Your task to perform on an android device: turn on the 12-hour format for clock Image 0: 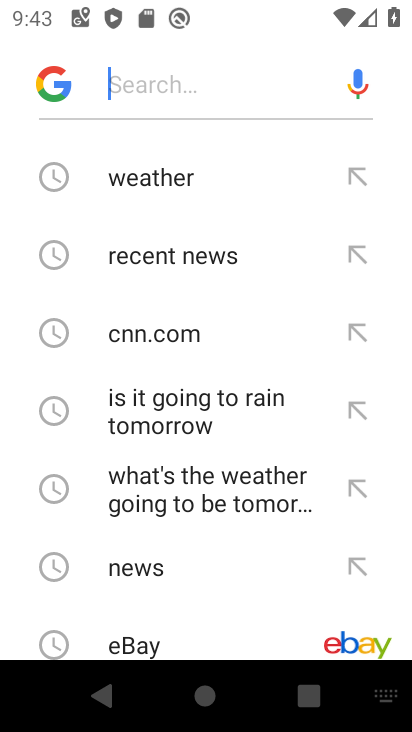
Step 0: press home button
Your task to perform on an android device: turn on the 12-hour format for clock Image 1: 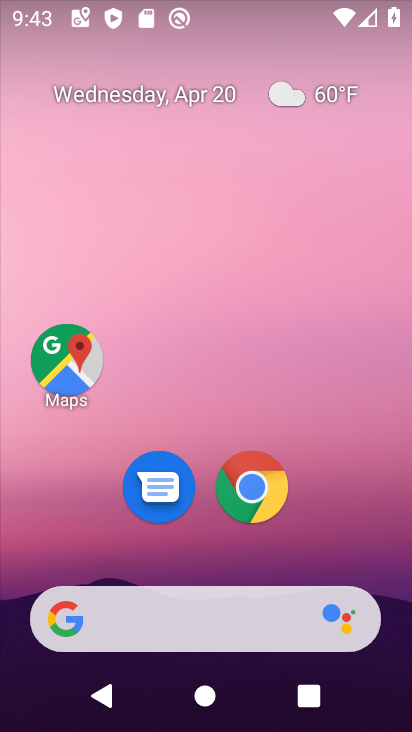
Step 1: click (255, 495)
Your task to perform on an android device: turn on the 12-hour format for clock Image 2: 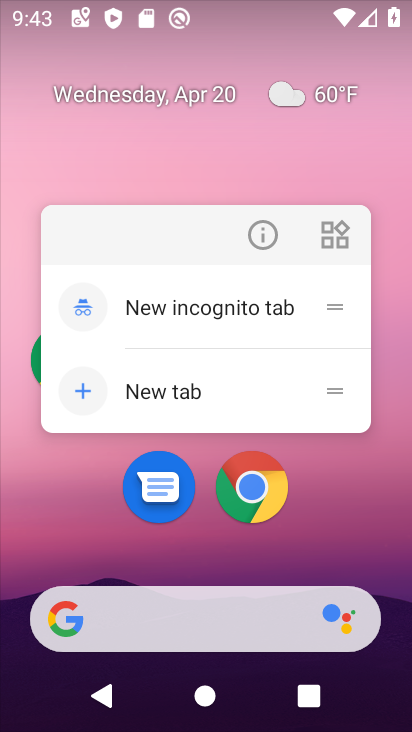
Step 2: press home button
Your task to perform on an android device: turn on the 12-hour format for clock Image 3: 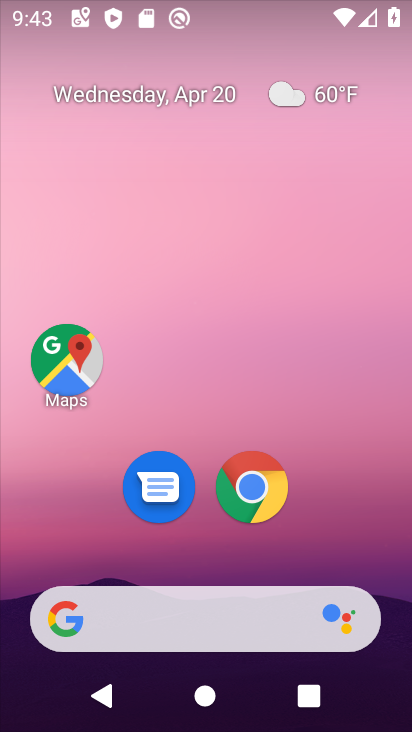
Step 3: drag from (13, 621) to (232, 171)
Your task to perform on an android device: turn on the 12-hour format for clock Image 4: 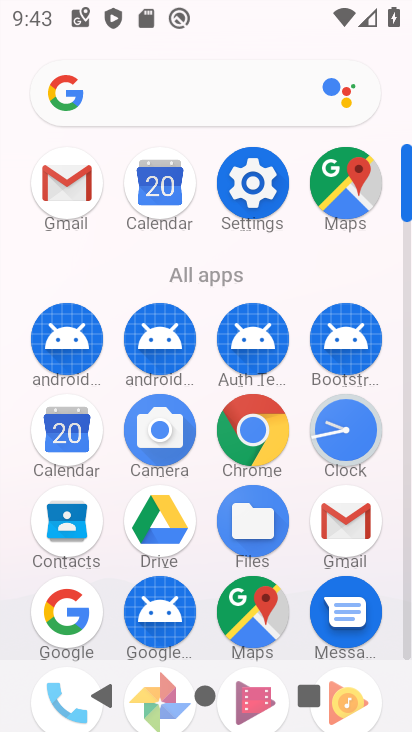
Step 4: click (357, 435)
Your task to perform on an android device: turn on the 12-hour format for clock Image 5: 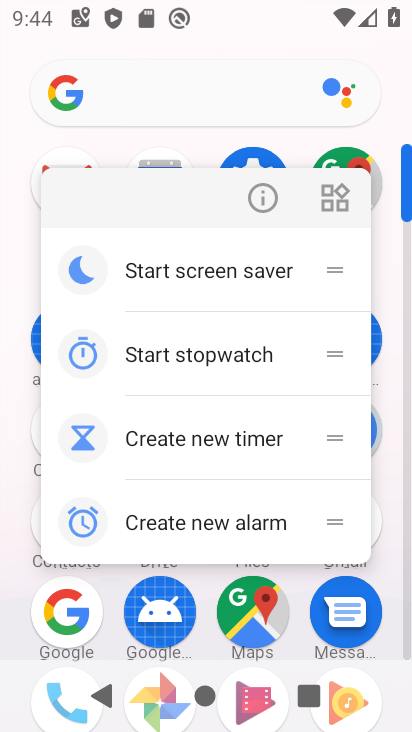
Step 5: click (388, 498)
Your task to perform on an android device: turn on the 12-hour format for clock Image 6: 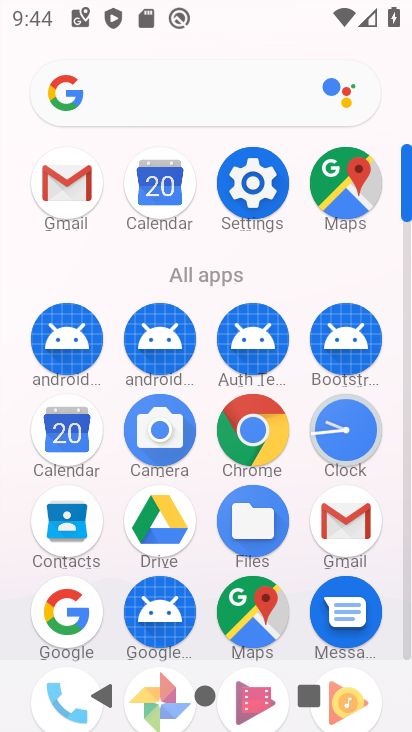
Step 6: click (355, 432)
Your task to perform on an android device: turn on the 12-hour format for clock Image 7: 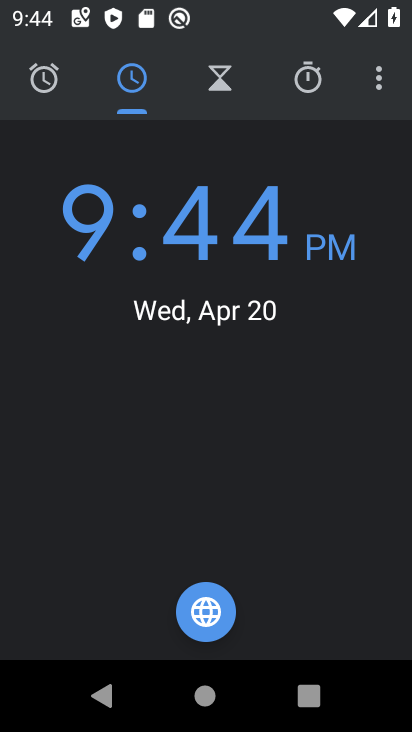
Step 7: click (383, 75)
Your task to perform on an android device: turn on the 12-hour format for clock Image 8: 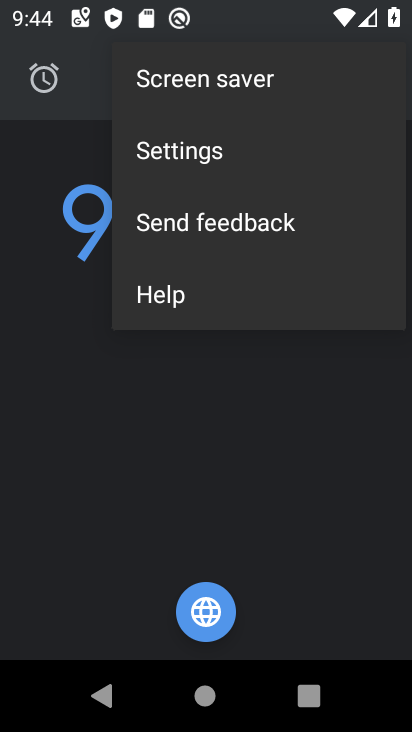
Step 8: click (293, 149)
Your task to perform on an android device: turn on the 12-hour format for clock Image 9: 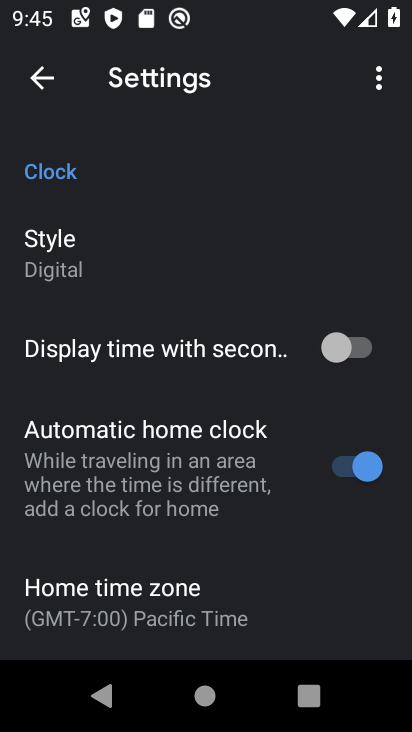
Step 9: drag from (137, 603) to (176, 250)
Your task to perform on an android device: turn on the 12-hour format for clock Image 10: 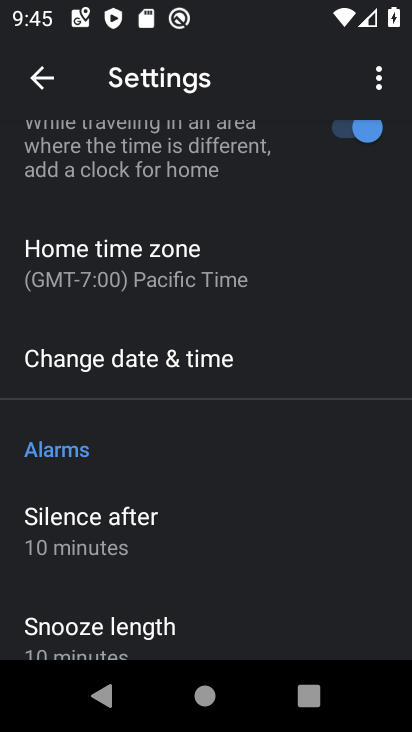
Step 10: drag from (187, 614) to (228, 195)
Your task to perform on an android device: turn on the 12-hour format for clock Image 11: 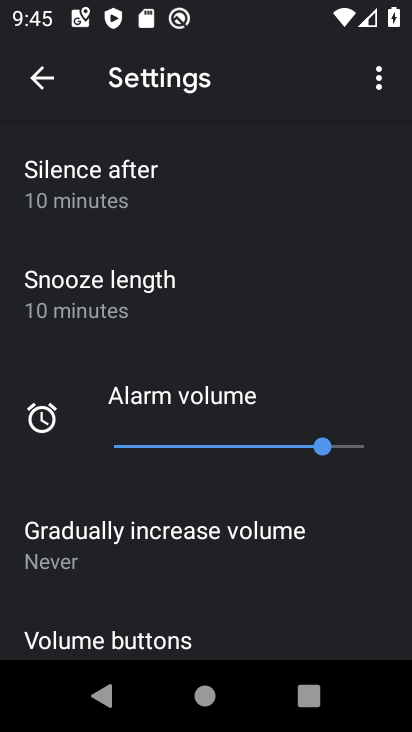
Step 11: drag from (243, 147) to (244, 389)
Your task to perform on an android device: turn on the 12-hour format for clock Image 12: 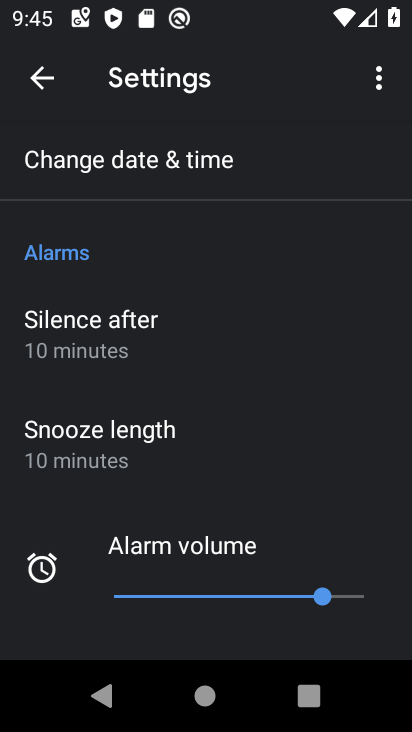
Step 12: click (155, 163)
Your task to perform on an android device: turn on the 12-hour format for clock Image 13: 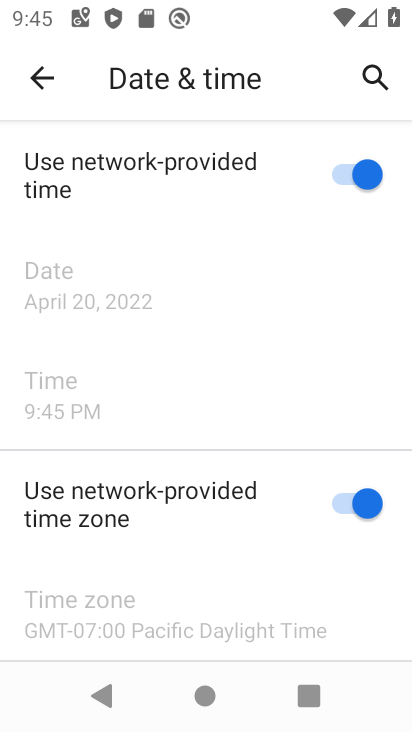
Step 13: drag from (230, 599) to (232, 343)
Your task to perform on an android device: turn on the 12-hour format for clock Image 14: 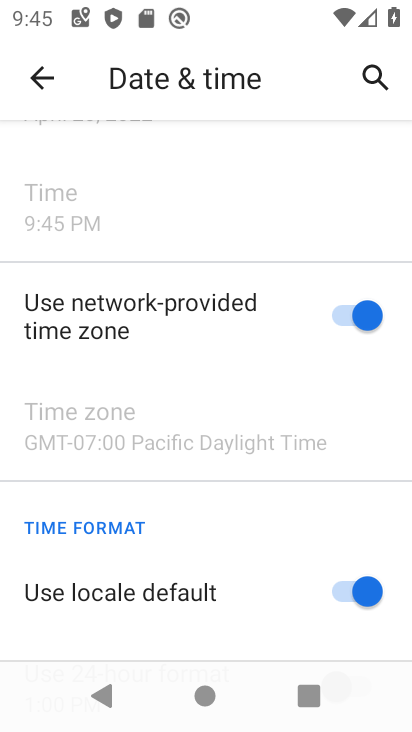
Step 14: drag from (125, 626) to (149, 225)
Your task to perform on an android device: turn on the 12-hour format for clock Image 15: 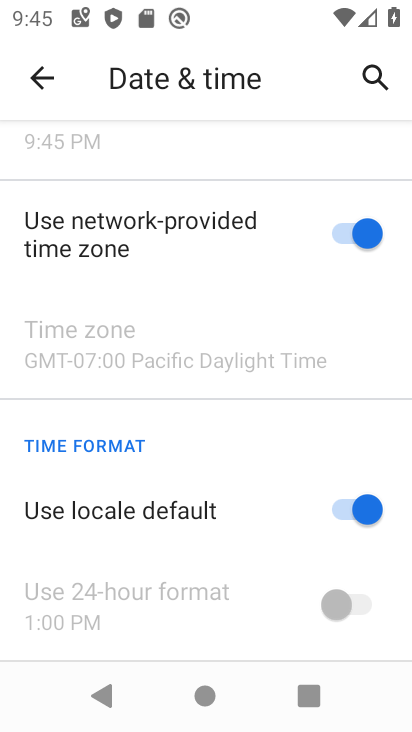
Step 15: drag from (132, 606) to (151, 288)
Your task to perform on an android device: turn on the 12-hour format for clock Image 16: 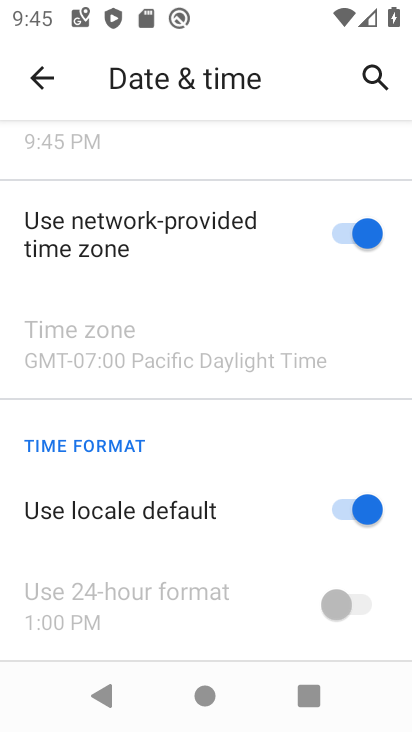
Step 16: click (373, 509)
Your task to perform on an android device: turn on the 12-hour format for clock Image 17: 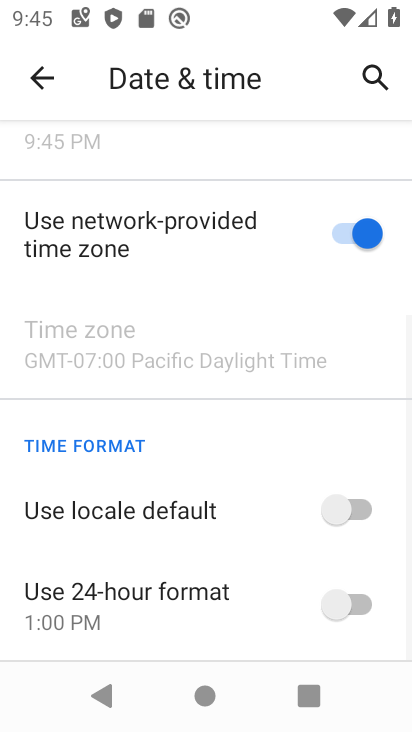
Step 17: click (345, 604)
Your task to perform on an android device: turn on the 12-hour format for clock Image 18: 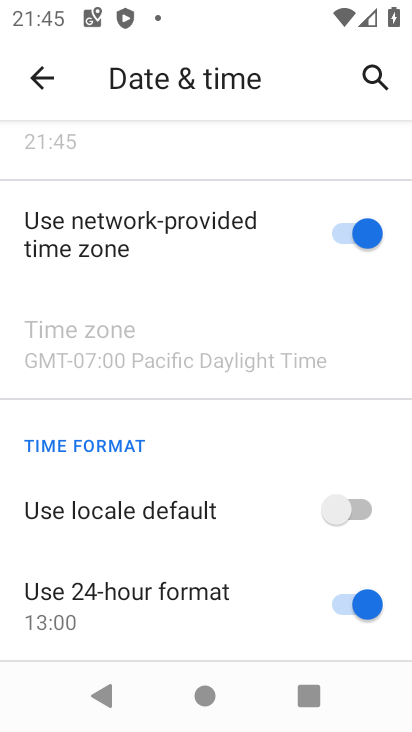
Step 18: task complete